Your task to perform on an android device: turn off smart reply in the gmail app Image 0: 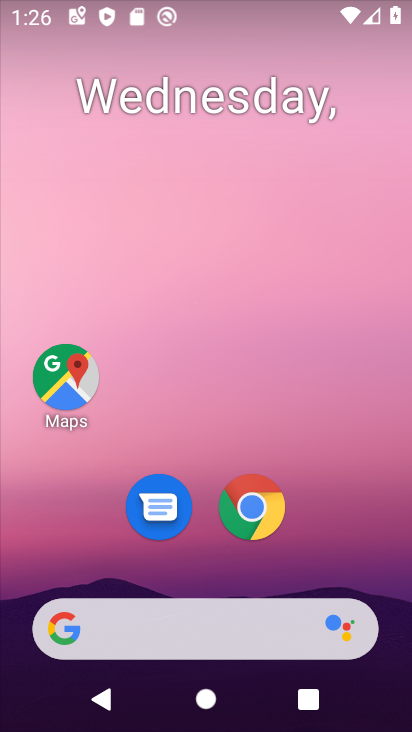
Step 0: drag from (323, 487) to (298, 197)
Your task to perform on an android device: turn off smart reply in the gmail app Image 1: 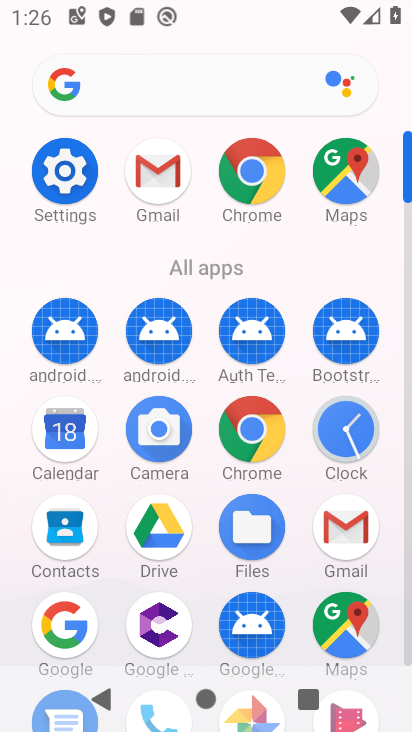
Step 1: click (329, 541)
Your task to perform on an android device: turn off smart reply in the gmail app Image 2: 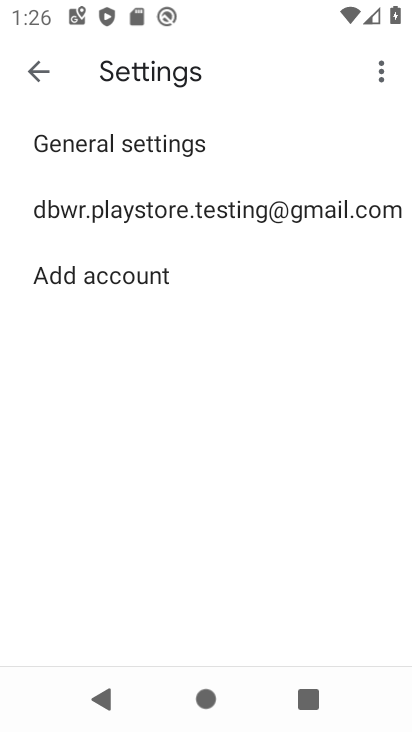
Step 2: click (54, 212)
Your task to perform on an android device: turn off smart reply in the gmail app Image 3: 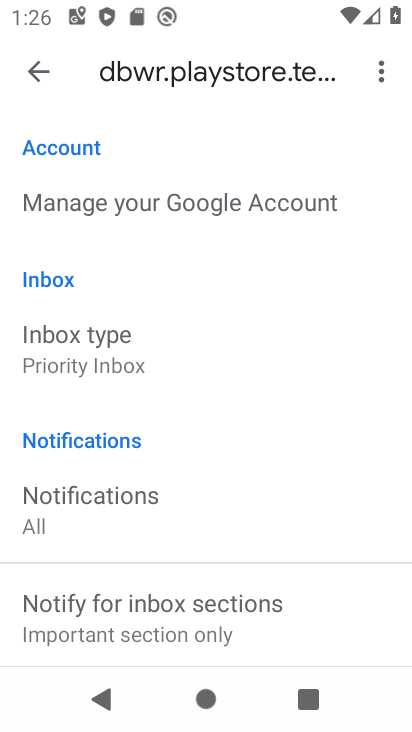
Step 3: drag from (208, 563) to (209, 193)
Your task to perform on an android device: turn off smart reply in the gmail app Image 4: 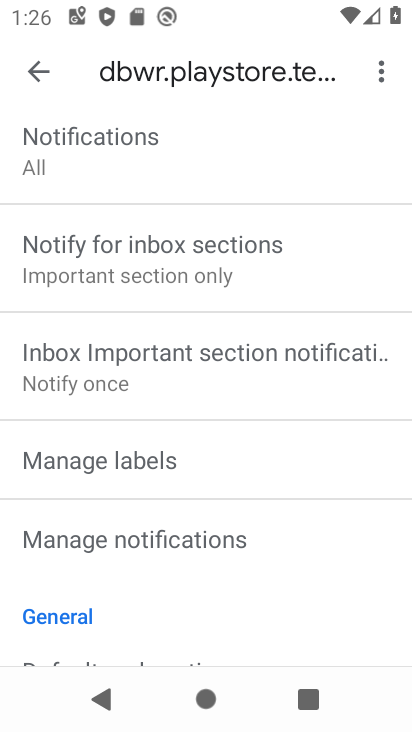
Step 4: drag from (257, 545) to (229, 262)
Your task to perform on an android device: turn off smart reply in the gmail app Image 5: 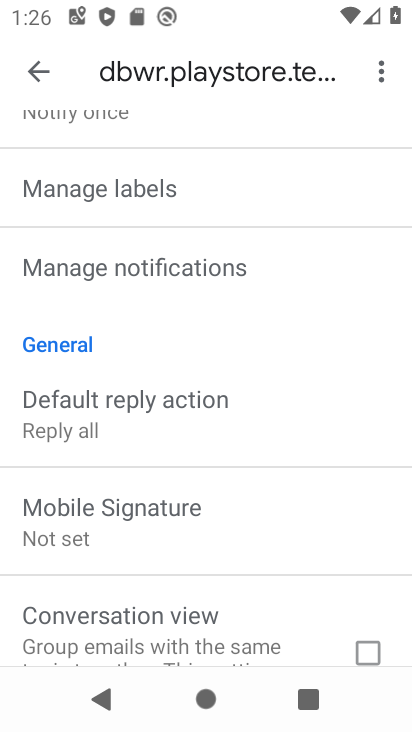
Step 5: drag from (242, 542) to (230, 228)
Your task to perform on an android device: turn off smart reply in the gmail app Image 6: 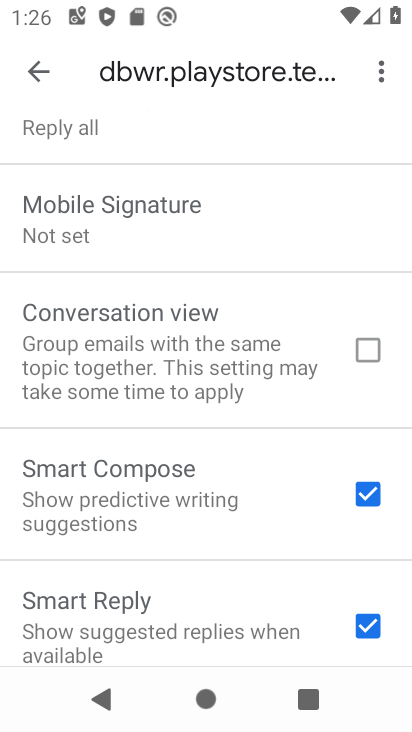
Step 6: drag from (251, 539) to (251, 310)
Your task to perform on an android device: turn off smart reply in the gmail app Image 7: 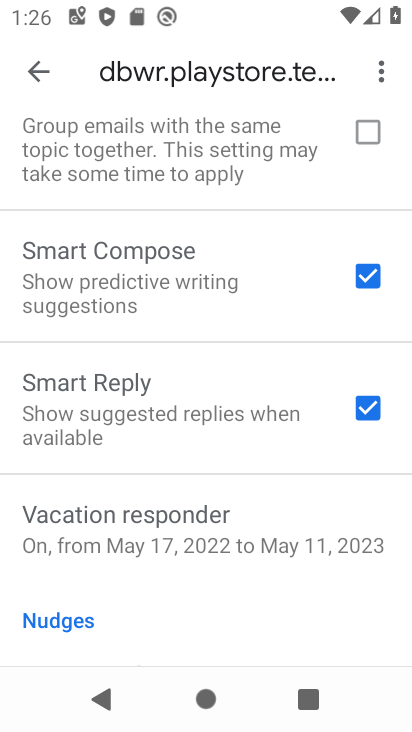
Step 7: click (358, 412)
Your task to perform on an android device: turn off smart reply in the gmail app Image 8: 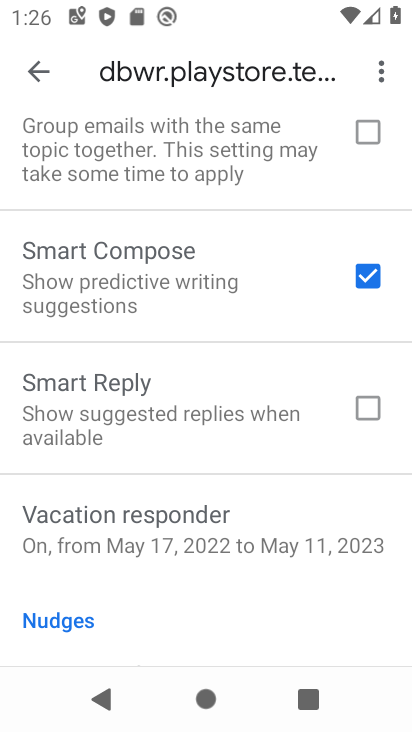
Step 8: task complete